Your task to perform on an android device: turn on improve location accuracy Image 0: 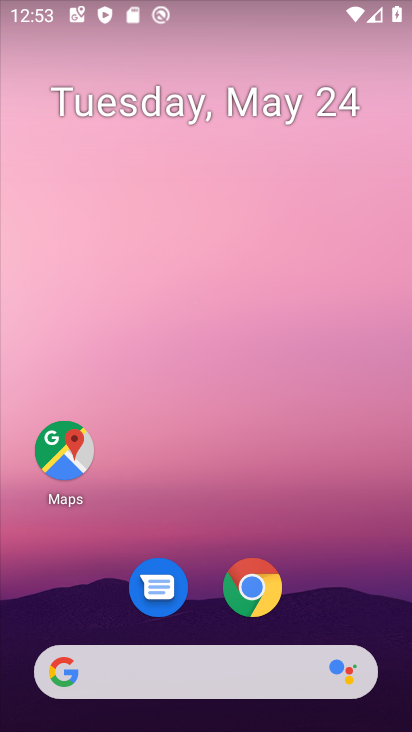
Step 0: drag from (349, 602) to (232, 87)
Your task to perform on an android device: turn on improve location accuracy Image 1: 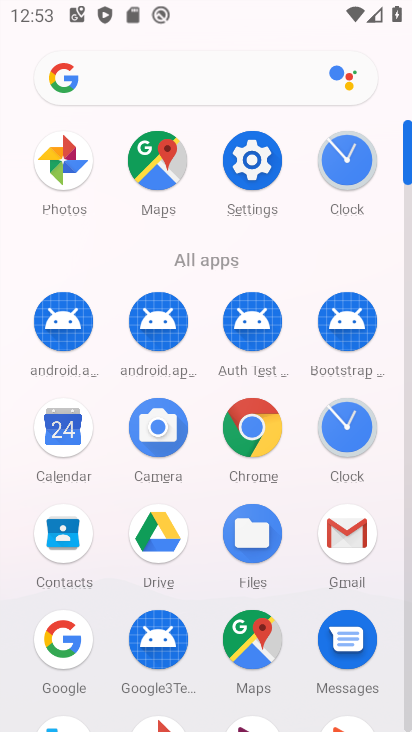
Step 1: click (238, 193)
Your task to perform on an android device: turn on improve location accuracy Image 2: 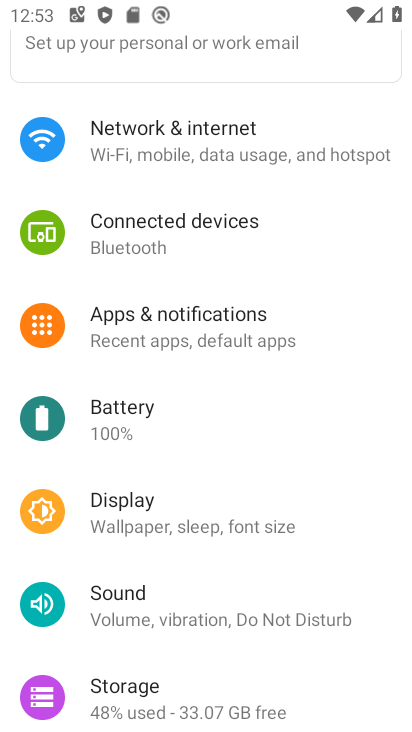
Step 2: click (272, 336)
Your task to perform on an android device: turn on improve location accuracy Image 3: 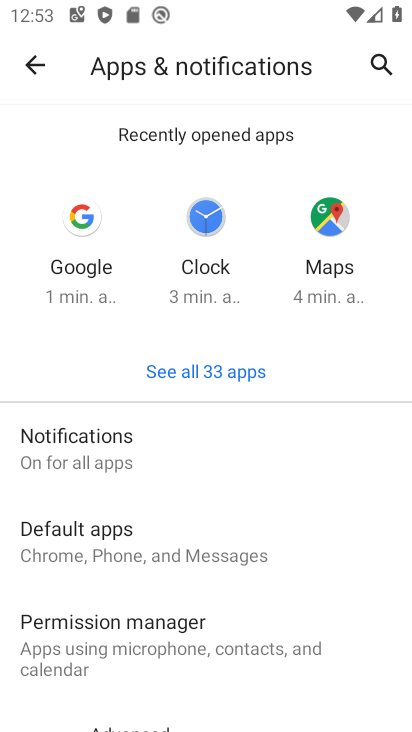
Step 3: drag from (198, 571) to (171, 297)
Your task to perform on an android device: turn on improve location accuracy Image 4: 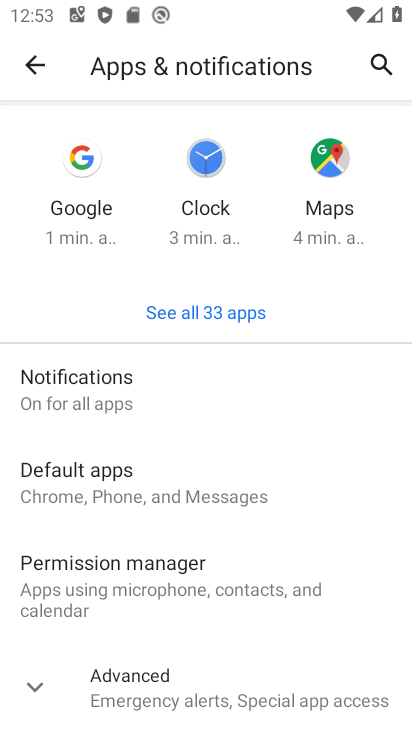
Step 4: click (45, 75)
Your task to perform on an android device: turn on improve location accuracy Image 5: 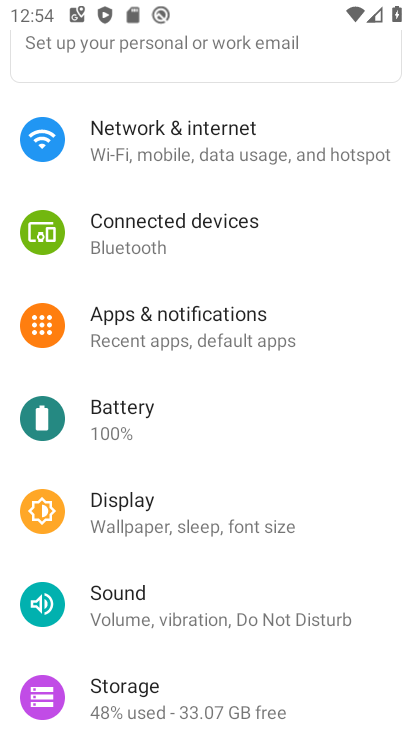
Step 5: drag from (174, 621) to (181, 376)
Your task to perform on an android device: turn on improve location accuracy Image 6: 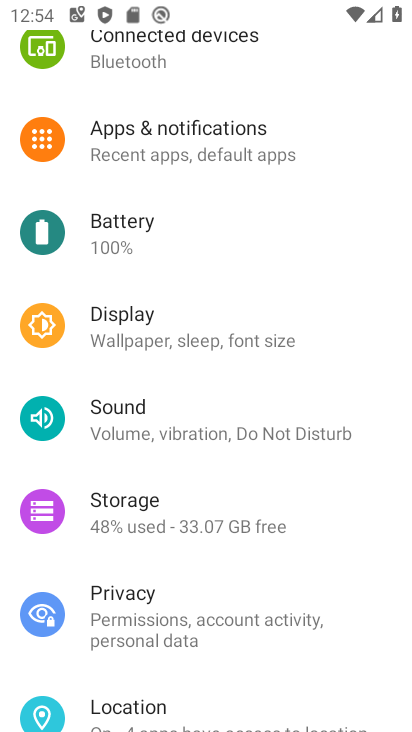
Step 6: click (189, 693)
Your task to perform on an android device: turn on improve location accuracy Image 7: 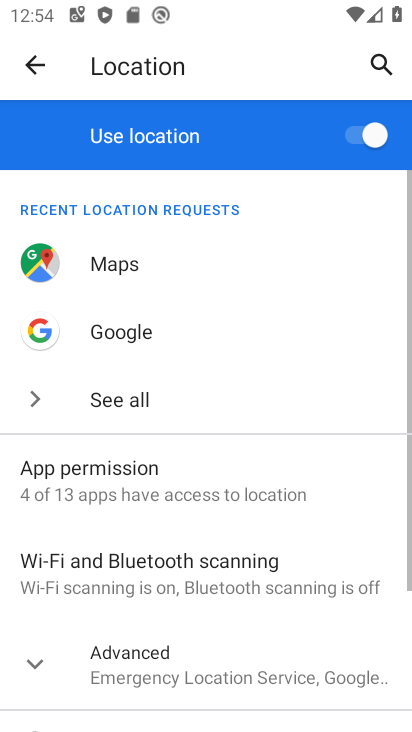
Step 7: click (195, 681)
Your task to perform on an android device: turn on improve location accuracy Image 8: 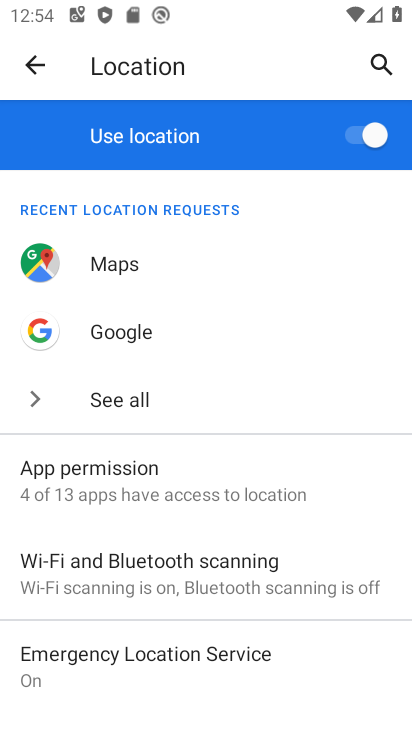
Step 8: task complete